Your task to perform on an android device: uninstall "Google Pay: Save, Pay, Manage" Image 0: 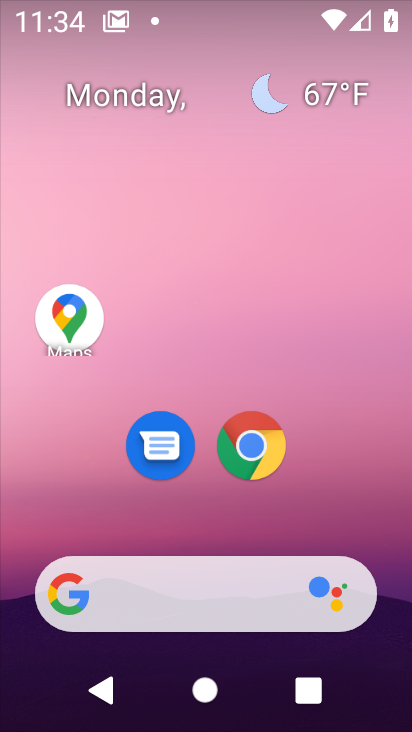
Step 0: drag from (249, 539) to (255, 185)
Your task to perform on an android device: uninstall "Google Pay: Save, Pay, Manage" Image 1: 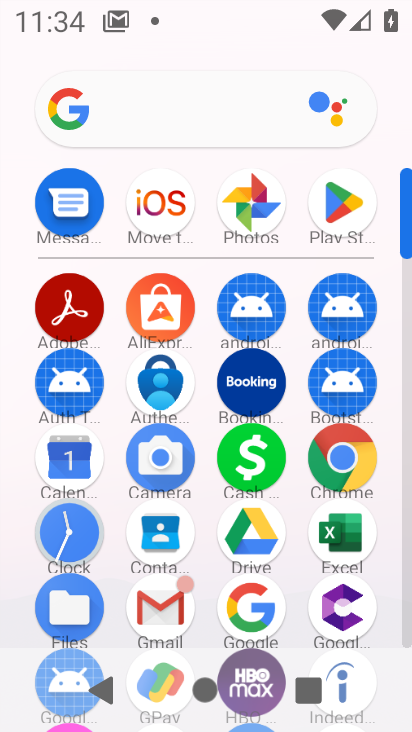
Step 1: drag from (175, 559) to (185, 230)
Your task to perform on an android device: uninstall "Google Pay: Save, Pay, Manage" Image 2: 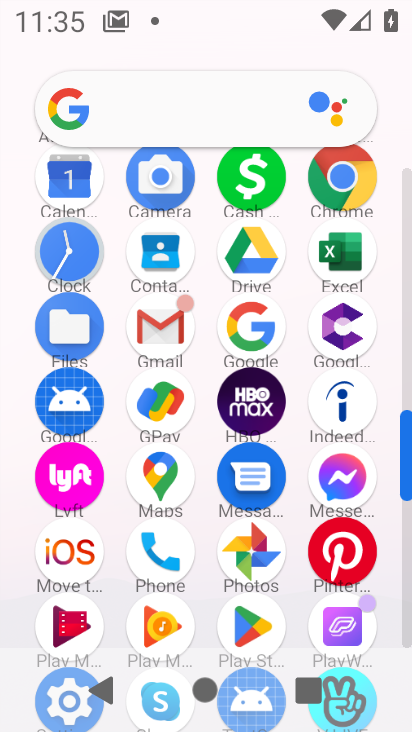
Step 2: drag from (197, 483) to (250, 147)
Your task to perform on an android device: uninstall "Google Pay: Save, Pay, Manage" Image 3: 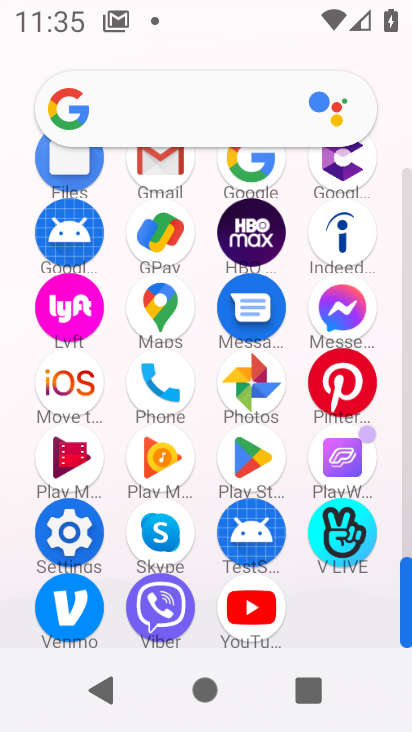
Step 3: click (254, 459)
Your task to perform on an android device: uninstall "Google Pay: Save, Pay, Manage" Image 4: 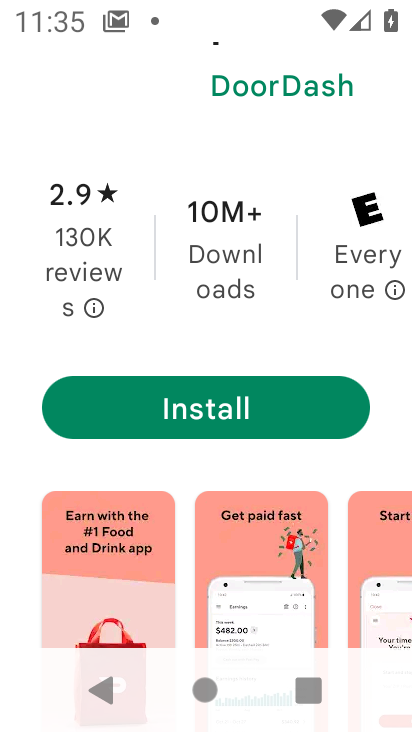
Step 4: drag from (219, 236) to (131, 678)
Your task to perform on an android device: uninstall "Google Pay: Save, Pay, Manage" Image 5: 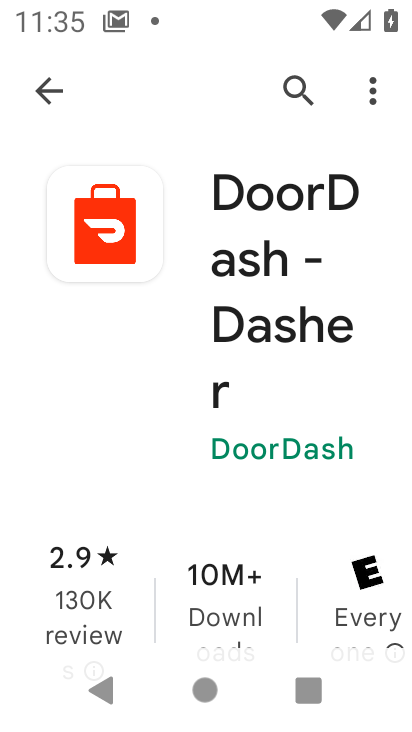
Step 5: click (54, 84)
Your task to perform on an android device: uninstall "Google Pay: Save, Pay, Manage" Image 6: 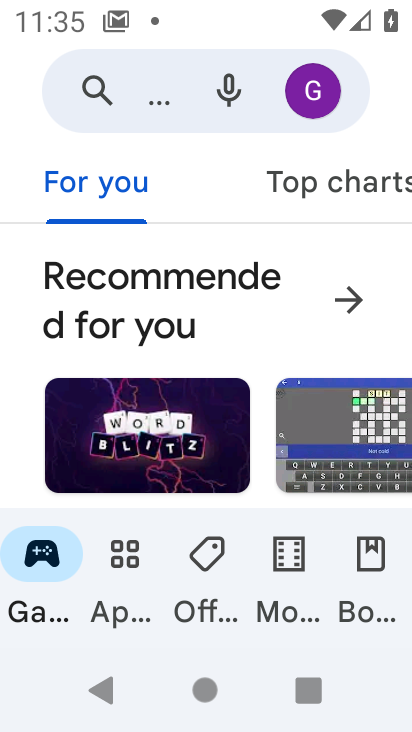
Step 6: click (72, 97)
Your task to perform on an android device: uninstall "Google Pay: Save, Pay, Manage" Image 7: 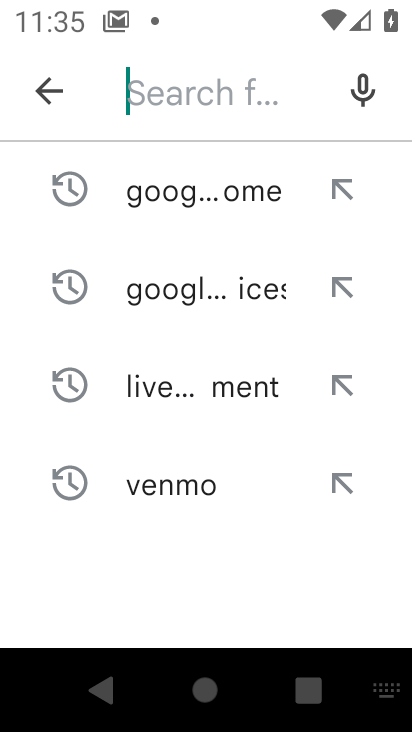
Step 7: type "Google Pay: Save, Pay, Manage"
Your task to perform on an android device: uninstall "Google Pay: Save, Pay, Manage" Image 8: 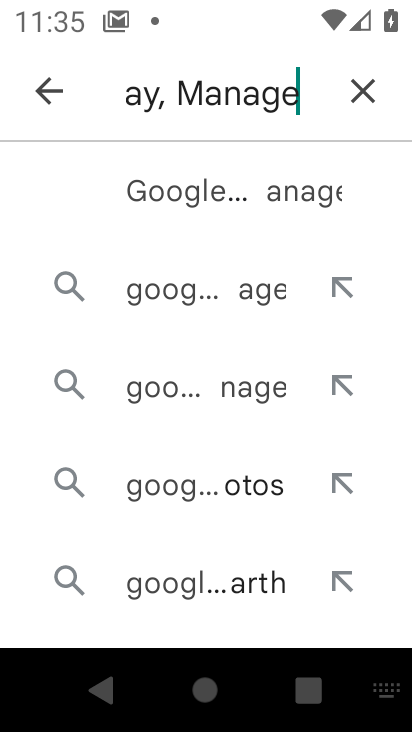
Step 8: type ""
Your task to perform on an android device: uninstall "Google Pay: Save, Pay, Manage" Image 9: 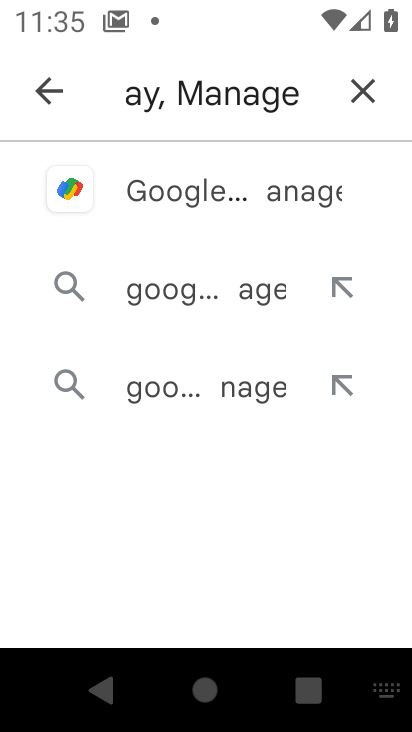
Step 9: click (256, 187)
Your task to perform on an android device: uninstall "Google Pay: Save, Pay, Manage" Image 10: 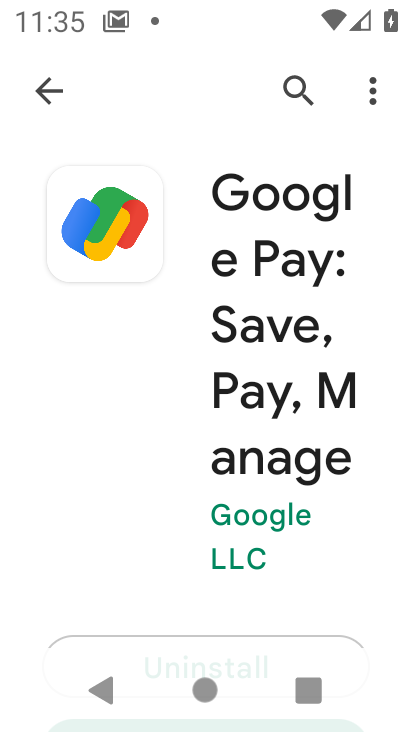
Step 10: drag from (202, 502) to (162, 118)
Your task to perform on an android device: uninstall "Google Pay: Save, Pay, Manage" Image 11: 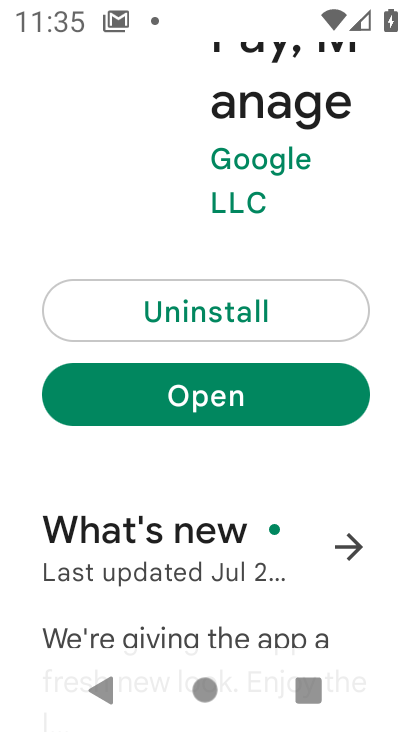
Step 11: click (179, 298)
Your task to perform on an android device: uninstall "Google Pay: Save, Pay, Manage" Image 12: 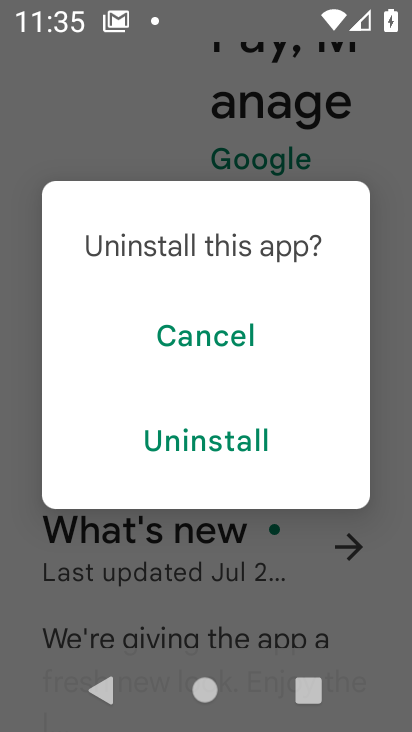
Step 12: click (143, 447)
Your task to perform on an android device: uninstall "Google Pay: Save, Pay, Manage" Image 13: 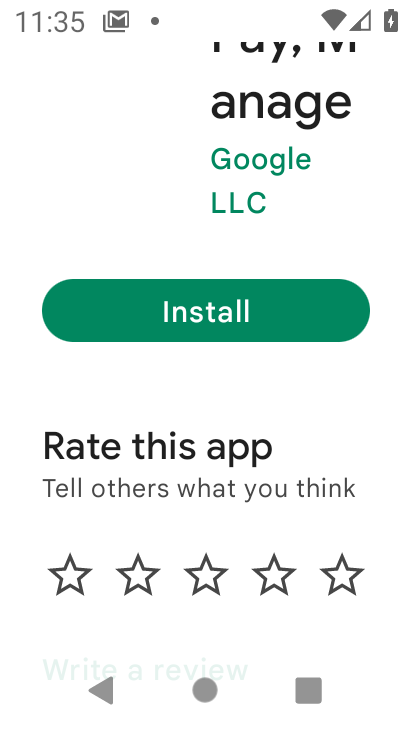
Step 13: task complete